Your task to perform on an android device: turn off sleep mode Image 0: 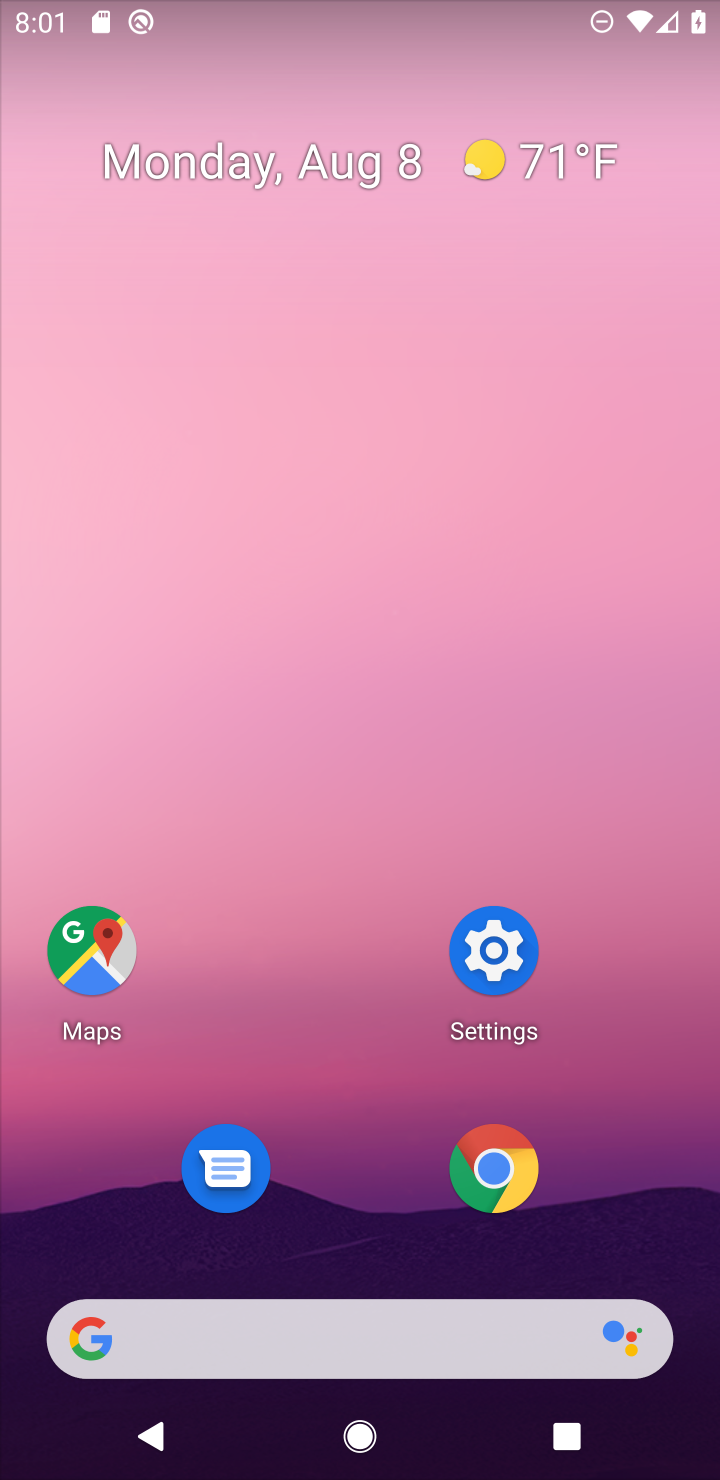
Step 0: click (485, 946)
Your task to perform on an android device: turn off sleep mode Image 1: 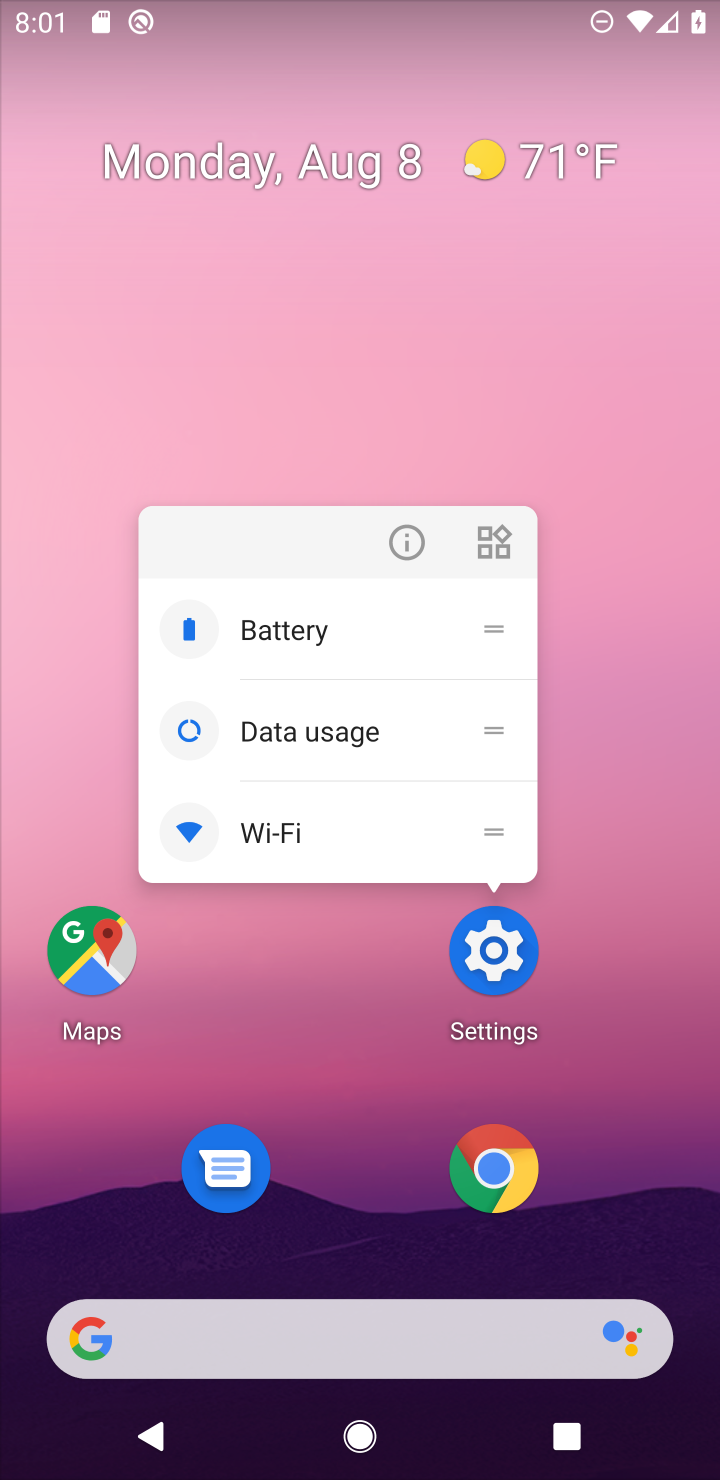
Step 1: click (485, 953)
Your task to perform on an android device: turn off sleep mode Image 2: 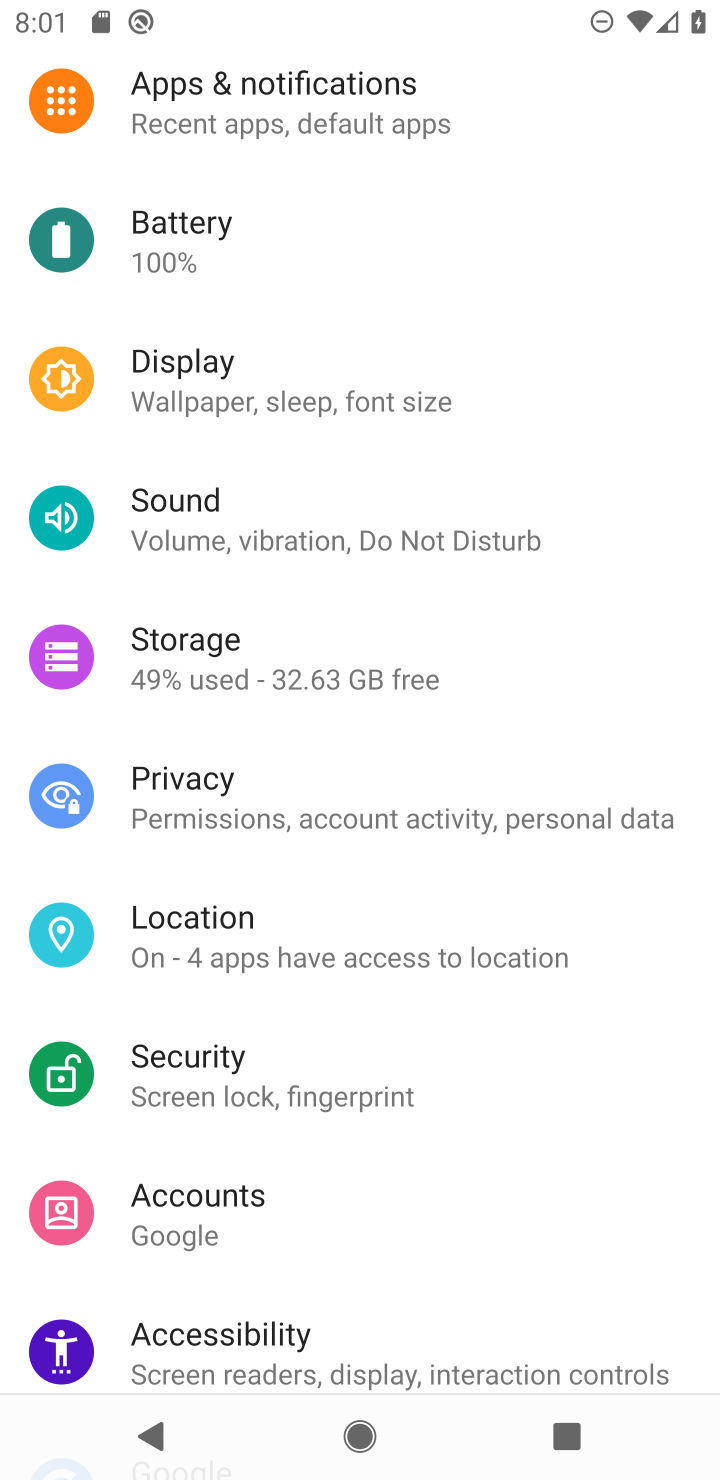
Step 2: click (340, 372)
Your task to perform on an android device: turn off sleep mode Image 3: 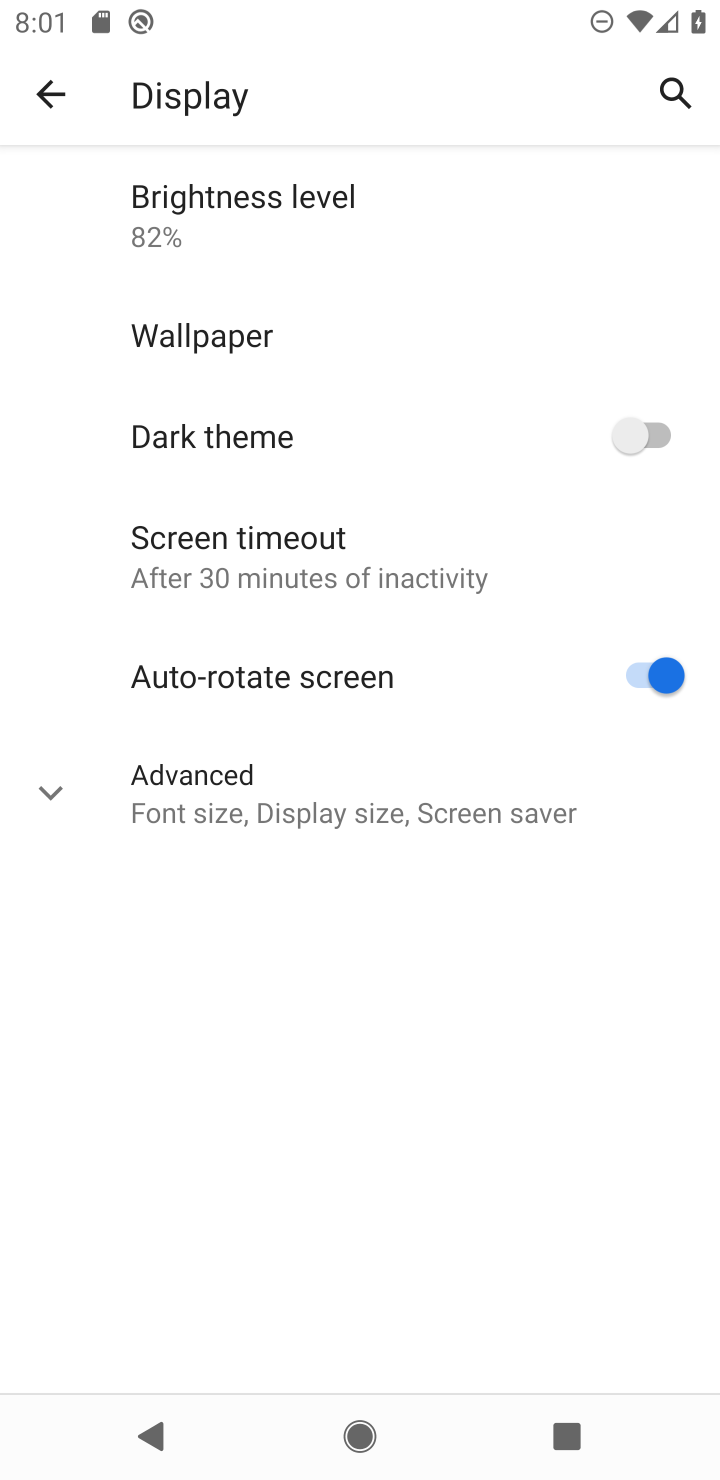
Step 3: task complete